Your task to perform on an android device: turn on notifications settings in the gmail app Image 0: 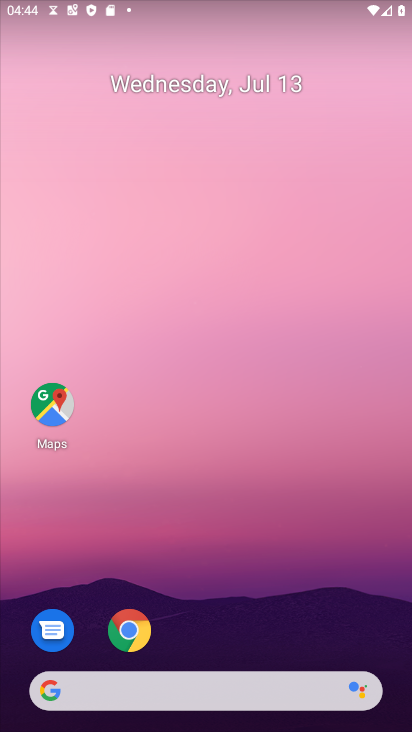
Step 0: drag from (198, 701) to (249, 125)
Your task to perform on an android device: turn on notifications settings in the gmail app Image 1: 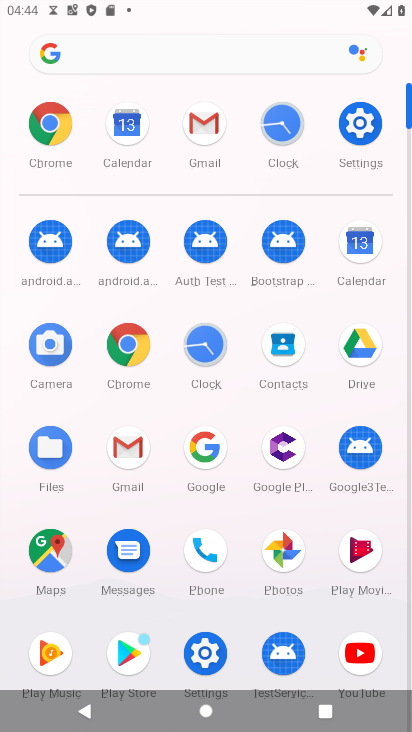
Step 1: click (129, 447)
Your task to perform on an android device: turn on notifications settings in the gmail app Image 2: 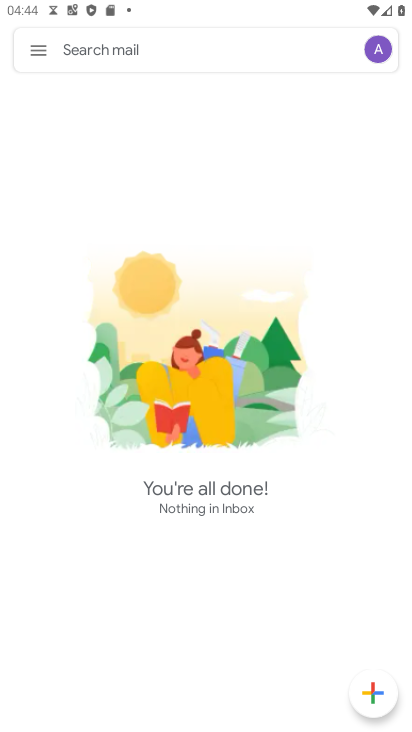
Step 2: click (54, 53)
Your task to perform on an android device: turn on notifications settings in the gmail app Image 3: 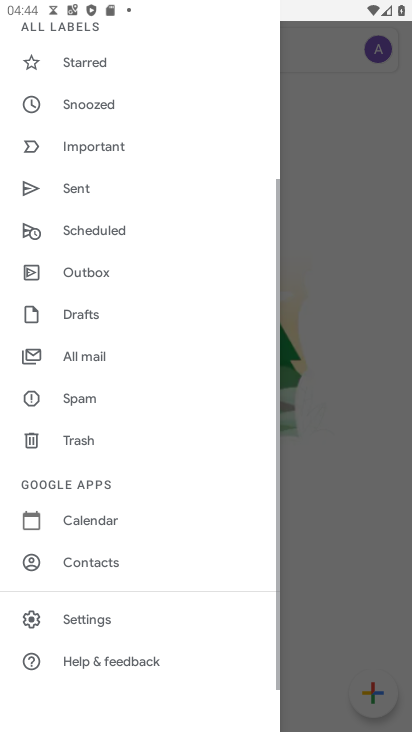
Step 3: click (90, 618)
Your task to perform on an android device: turn on notifications settings in the gmail app Image 4: 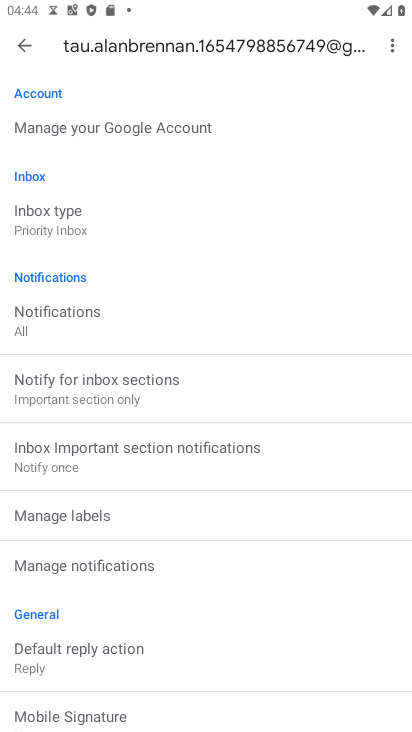
Step 4: click (130, 559)
Your task to perform on an android device: turn on notifications settings in the gmail app Image 5: 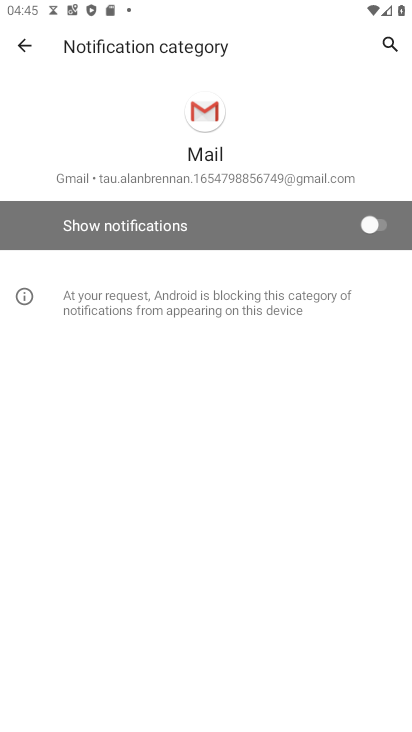
Step 5: task complete